Your task to perform on an android device: read, delete, or share a saved page in the chrome app Image 0: 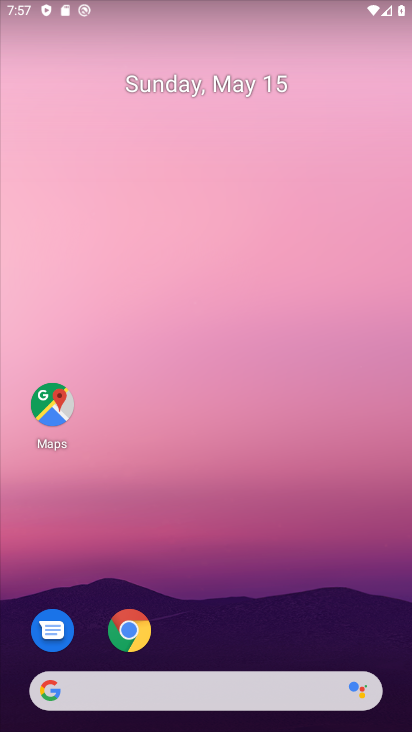
Step 0: click (123, 630)
Your task to perform on an android device: read, delete, or share a saved page in the chrome app Image 1: 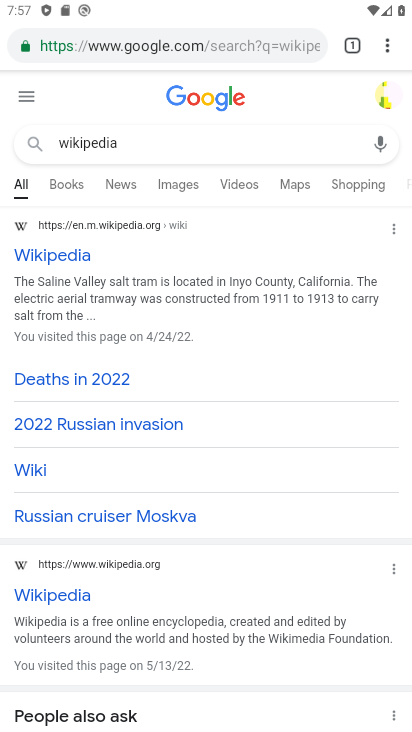
Step 1: click (391, 43)
Your task to perform on an android device: read, delete, or share a saved page in the chrome app Image 2: 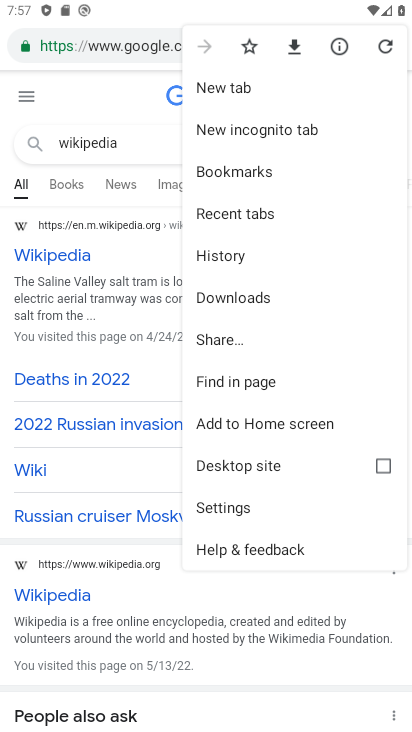
Step 2: click (238, 300)
Your task to perform on an android device: read, delete, or share a saved page in the chrome app Image 3: 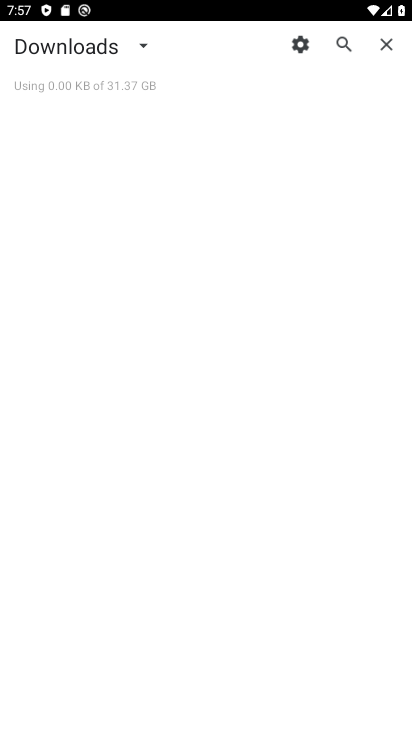
Step 3: task complete